Your task to perform on an android device: Open Amazon Image 0: 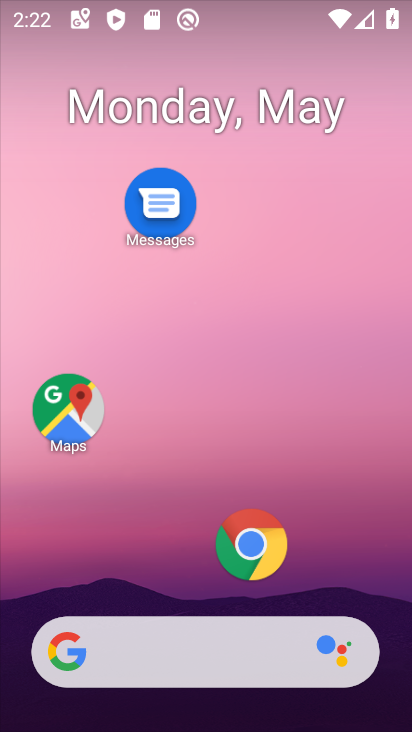
Step 0: click (233, 537)
Your task to perform on an android device: Open Amazon Image 1: 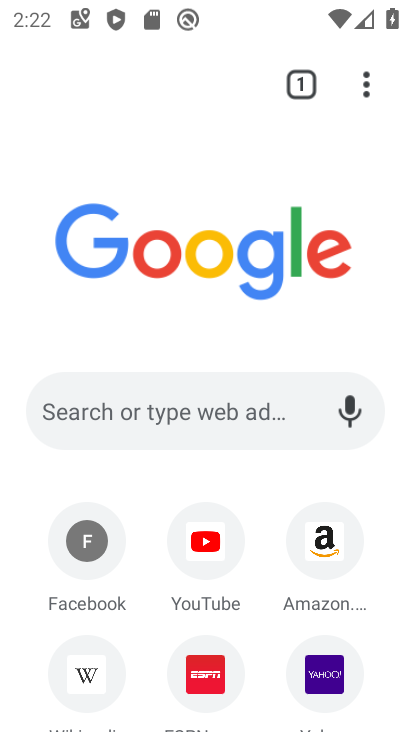
Step 1: click (301, 545)
Your task to perform on an android device: Open Amazon Image 2: 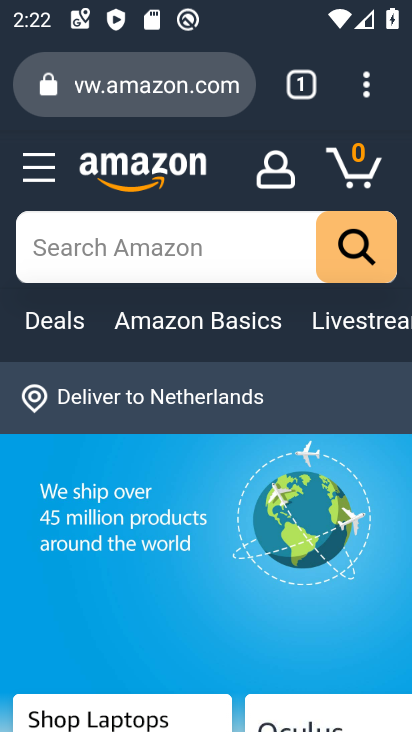
Step 2: task complete